Your task to perform on an android device: turn on sleep mode Image 0: 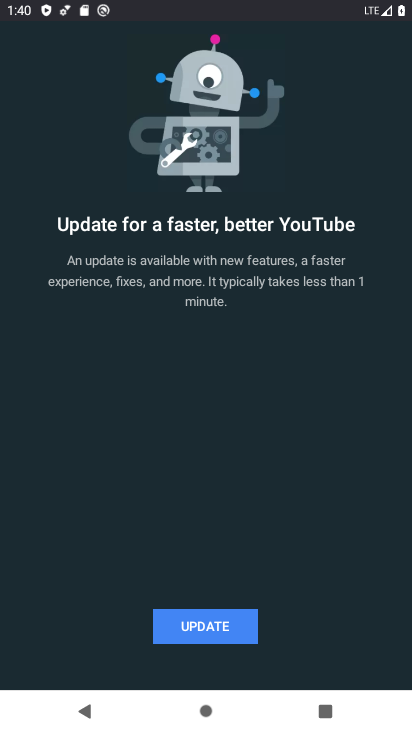
Step 0: press home button
Your task to perform on an android device: turn on sleep mode Image 1: 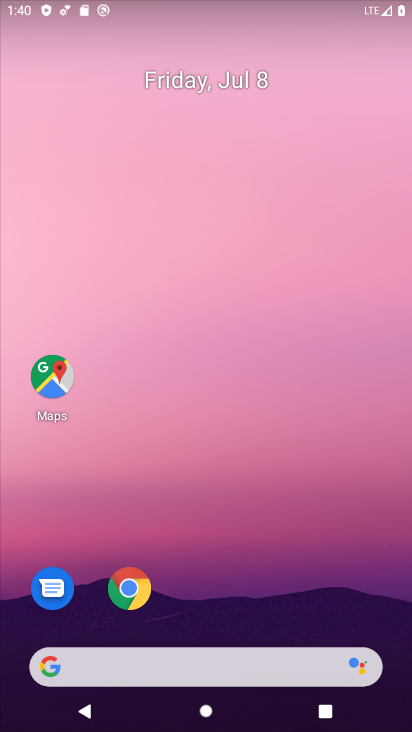
Step 1: drag from (294, 567) to (300, 147)
Your task to perform on an android device: turn on sleep mode Image 2: 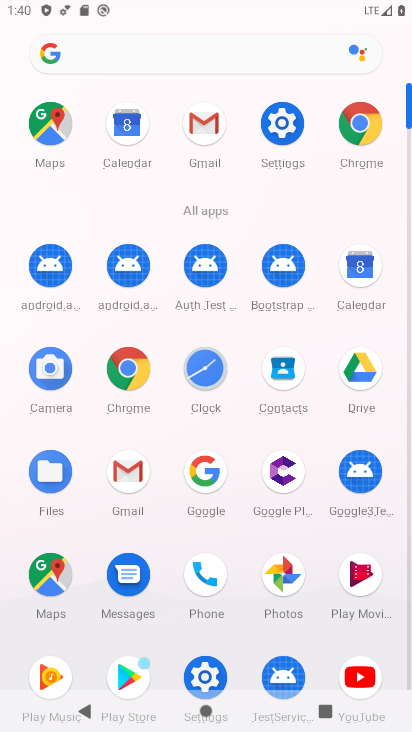
Step 2: click (292, 120)
Your task to perform on an android device: turn on sleep mode Image 3: 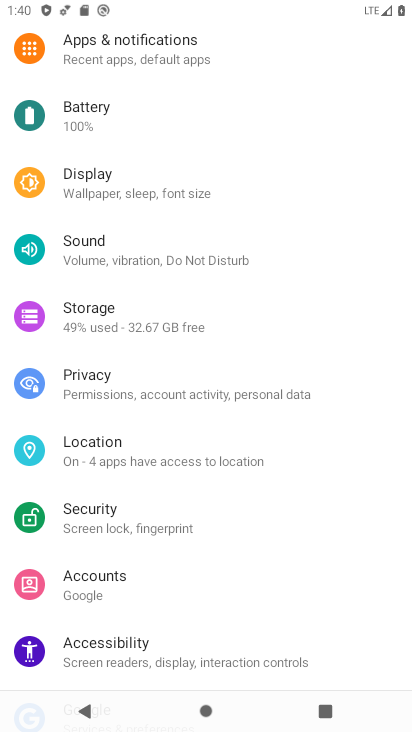
Step 3: click (82, 184)
Your task to perform on an android device: turn on sleep mode Image 4: 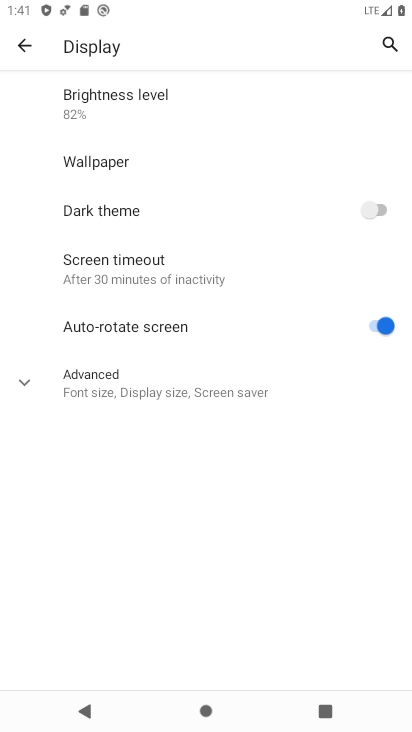
Step 4: click (183, 388)
Your task to perform on an android device: turn on sleep mode Image 5: 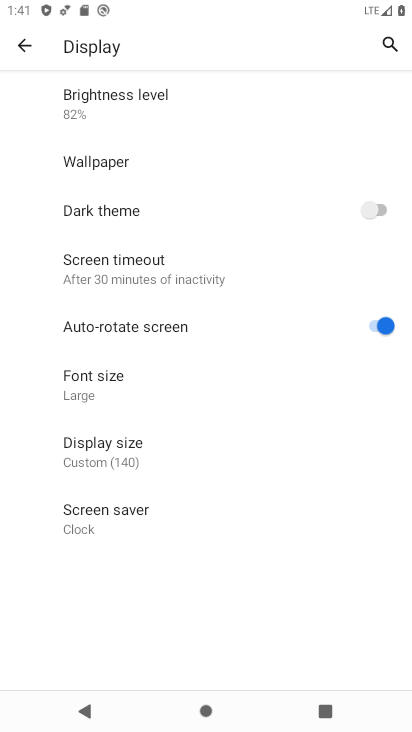
Step 5: task complete